Your task to perform on an android device: Toggle the flashlight Image 0: 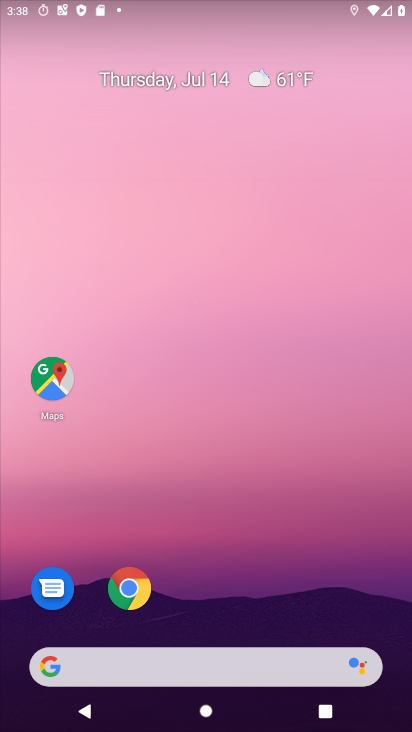
Step 0: drag from (230, 677) to (325, 309)
Your task to perform on an android device: Toggle the flashlight Image 1: 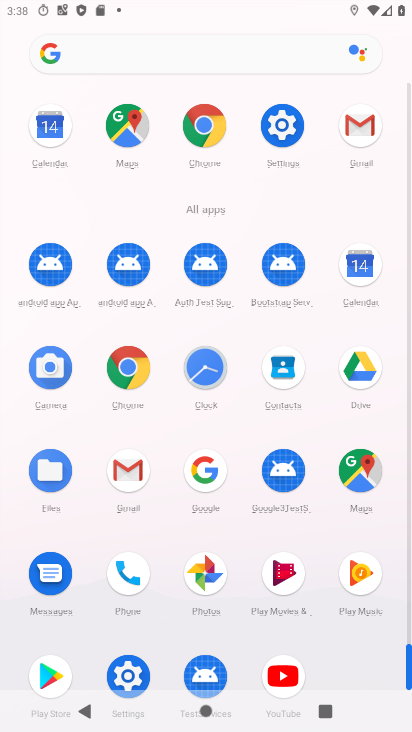
Step 1: click (281, 126)
Your task to perform on an android device: Toggle the flashlight Image 2: 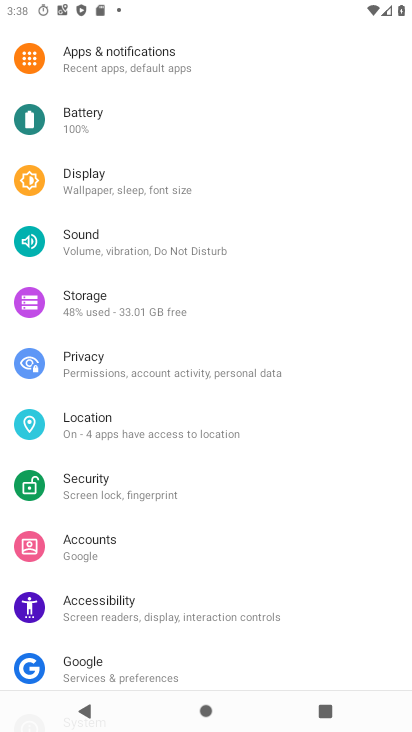
Step 2: click (158, 189)
Your task to perform on an android device: Toggle the flashlight Image 3: 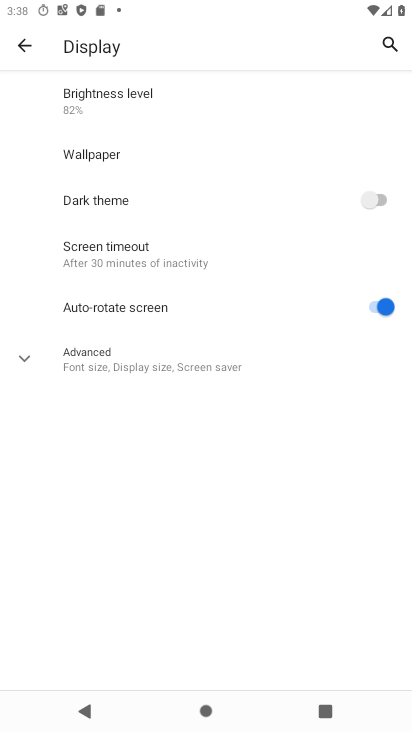
Step 3: click (129, 365)
Your task to perform on an android device: Toggle the flashlight Image 4: 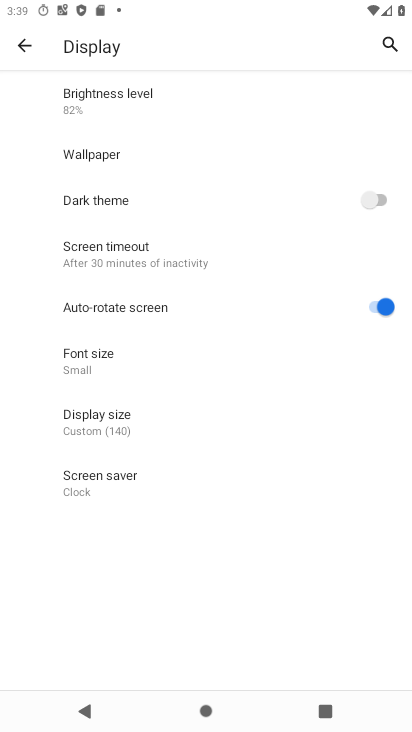
Step 4: press back button
Your task to perform on an android device: Toggle the flashlight Image 5: 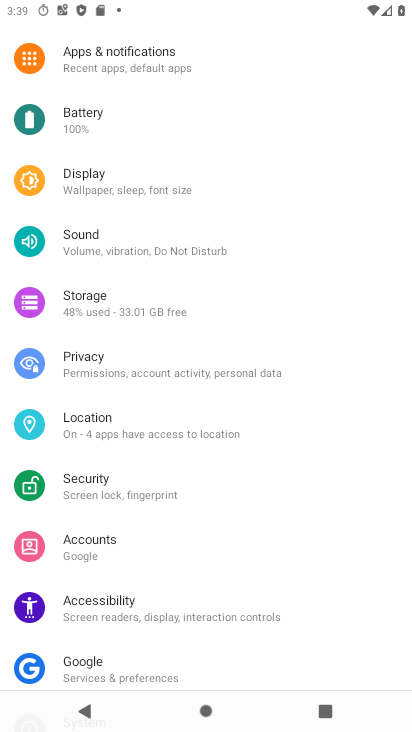
Step 5: click (106, 440)
Your task to perform on an android device: Toggle the flashlight Image 6: 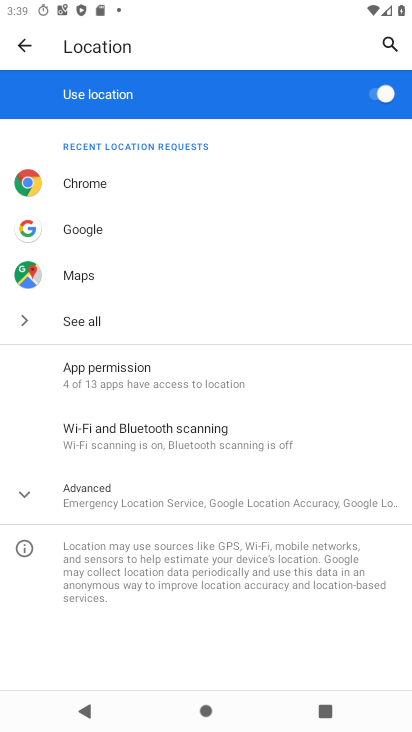
Step 6: press back button
Your task to perform on an android device: Toggle the flashlight Image 7: 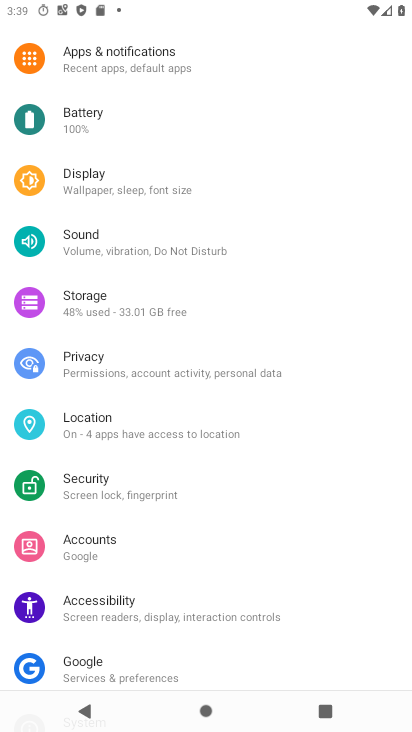
Step 7: drag from (129, 573) to (170, 438)
Your task to perform on an android device: Toggle the flashlight Image 8: 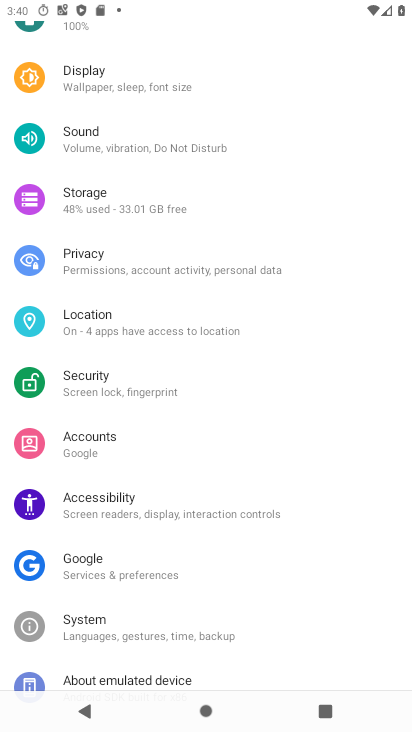
Step 8: click (137, 93)
Your task to perform on an android device: Toggle the flashlight Image 9: 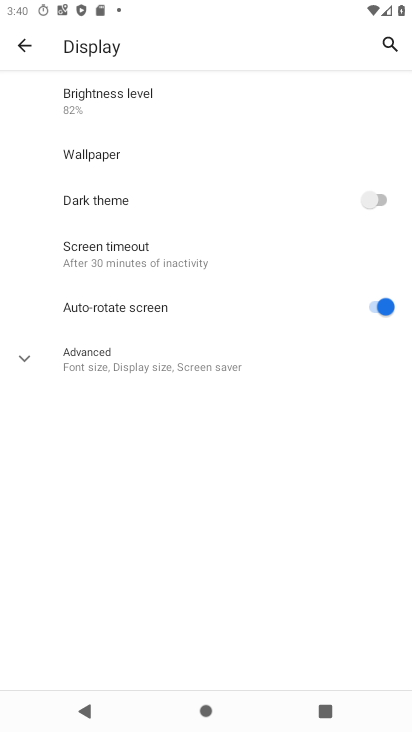
Step 9: click (110, 249)
Your task to perform on an android device: Toggle the flashlight Image 10: 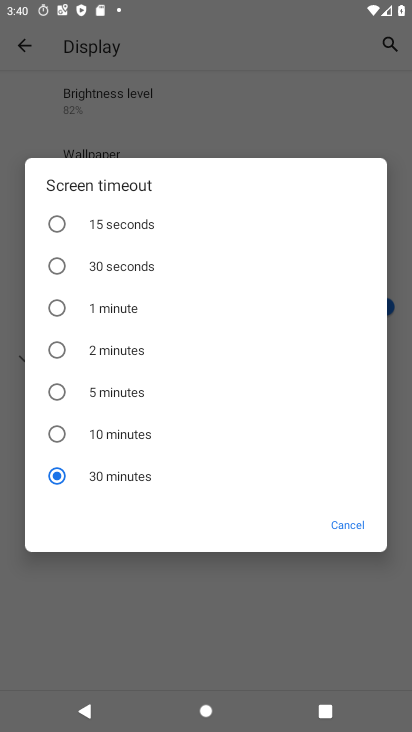
Step 10: click (354, 524)
Your task to perform on an android device: Toggle the flashlight Image 11: 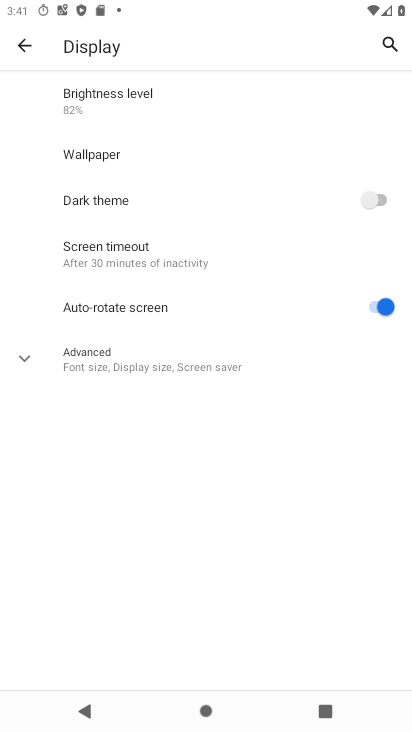
Step 11: task complete